Your task to perform on an android device: Open Google Maps Image 0: 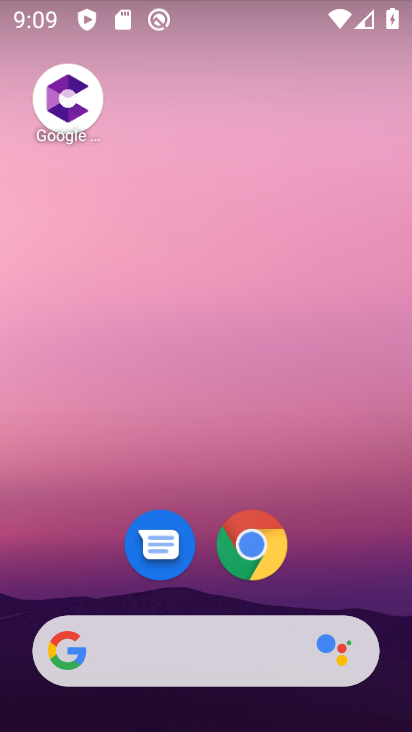
Step 0: drag from (311, 590) to (309, 15)
Your task to perform on an android device: Open Google Maps Image 1: 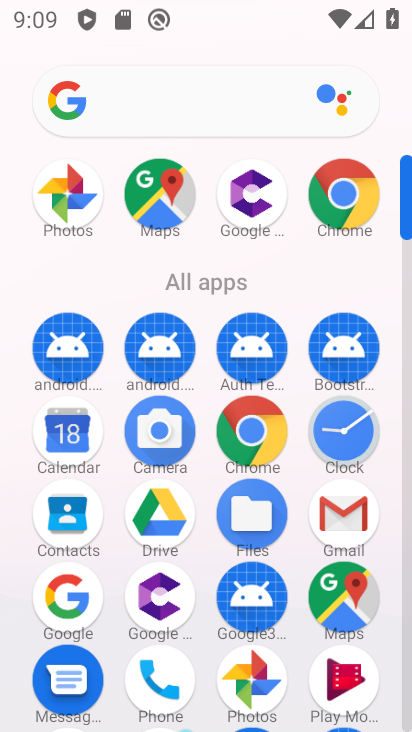
Step 1: click (329, 590)
Your task to perform on an android device: Open Google Maps Image 2: 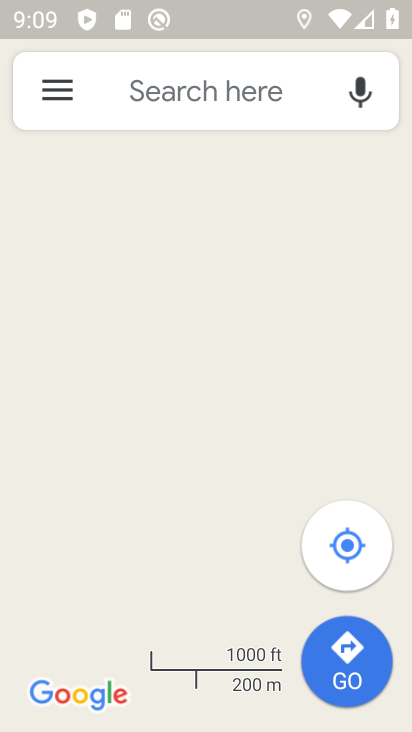
Step 2: task complete